Your task to perform on an android device: empty trash in the gmail app Image 0: 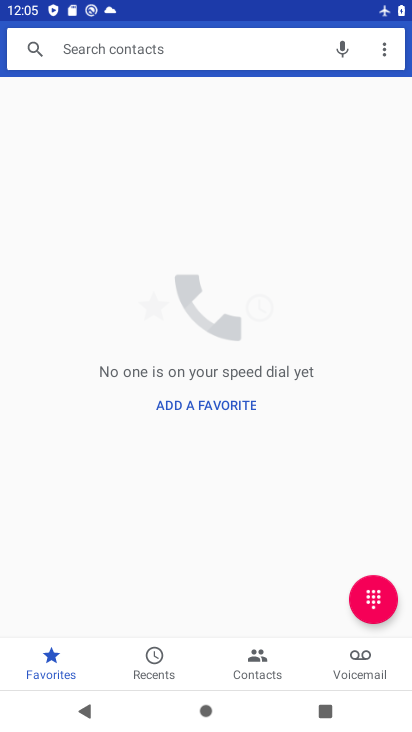
Step 0: press home button
Your task to perform on an android device: empty trash in the gmail app Image 1: 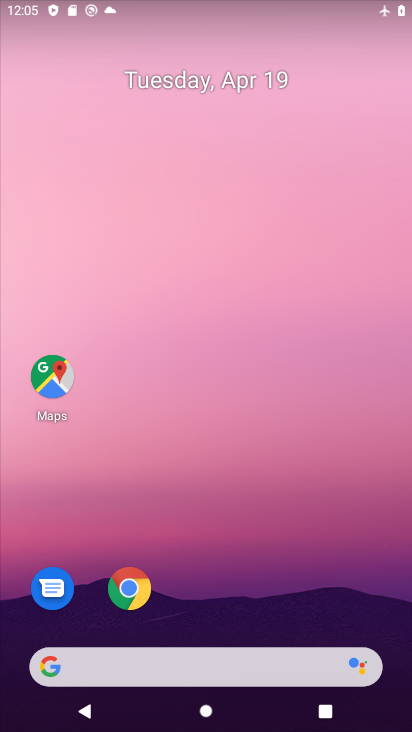
Step 1: drag from (363, 560) to (407, 40)
Your task to perform on an android device: empty trash in the gmail app Image 2: 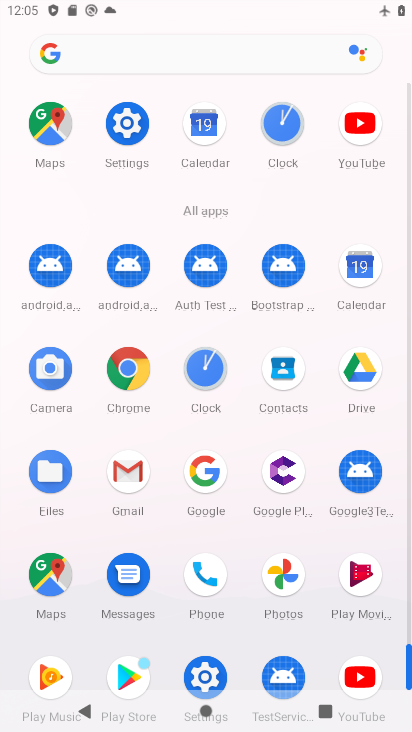
Step 2: click (132, 482)
Your task to perform on an android device: empty trash in the gmail app Image 3: 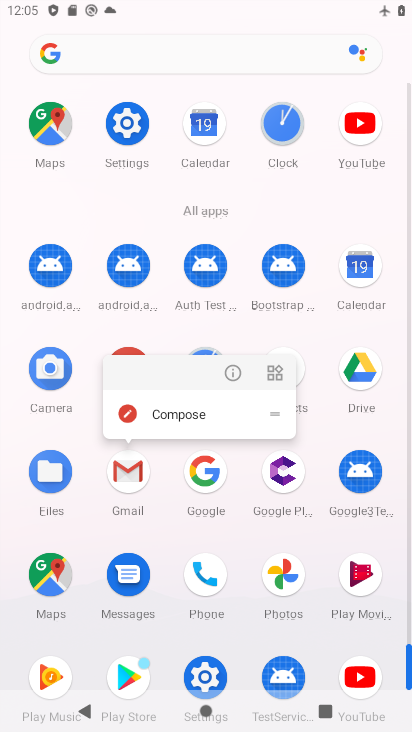
Step 3: click (127, 475)
Your task to perform on an android device: empty trash in the gmail app Image 4: 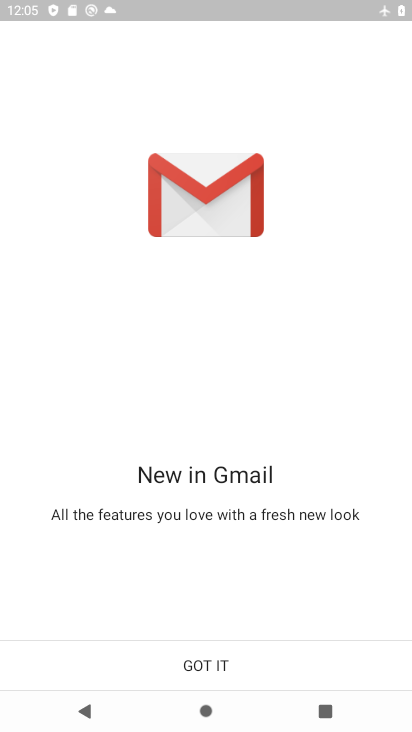
Step 4: click (207, 661)
Your task to perform on an android device: empty trash in the gmail app Image 5: 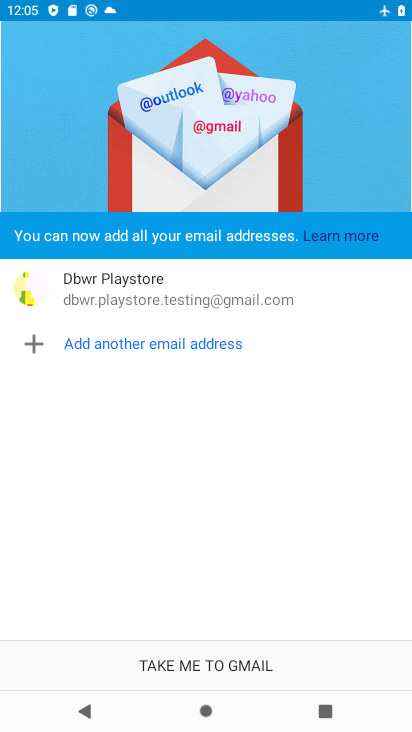
Step 5: click (227, 667)
Your task to perform on an android device: empty trash in the gmail app Image 6: 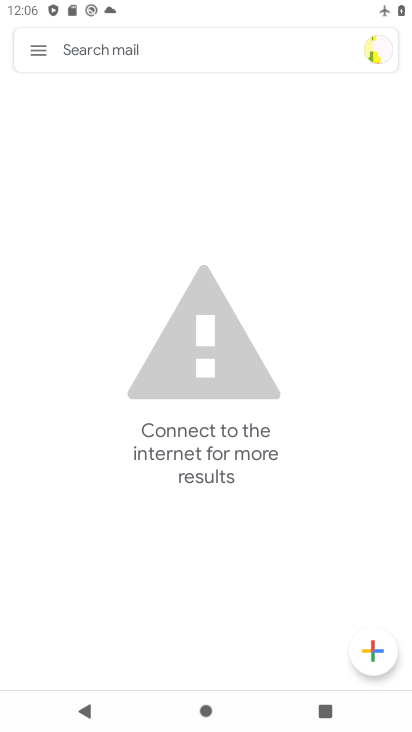
Step 6: click (32, 43)
Your task to perform on an android device: empty trash in the gmail app Image 7: 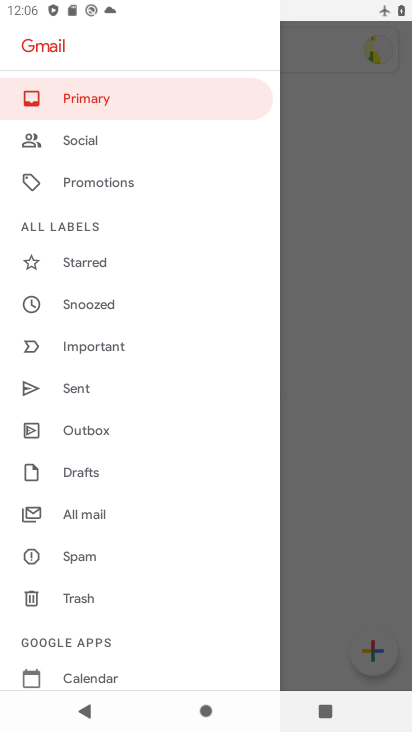
Step 7: click (75, 596)
Your task to perform on an android device: empty trash in the gmail app Image 8: 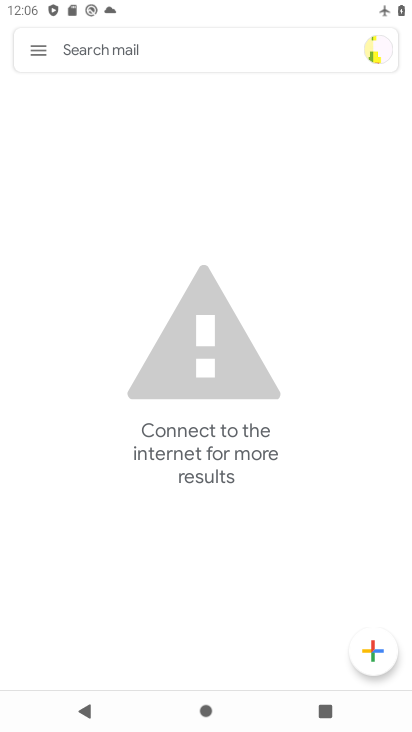
Step 8: task complete